Your task to perform on an android device: Open the calendar and show me this week's events Image 0: 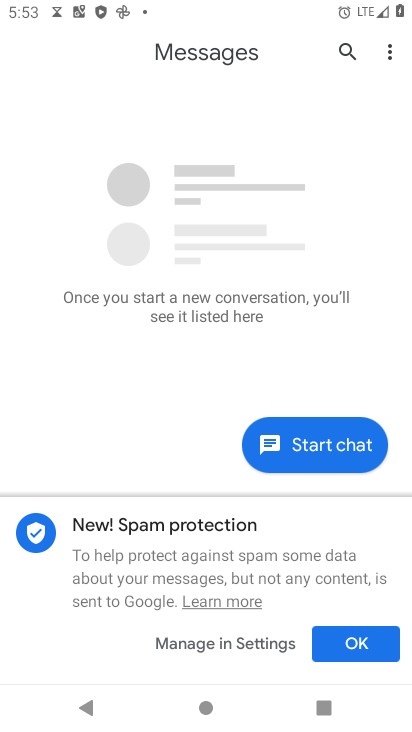
Step 0: press home button
Your task to perform on an android device: Open the calendar and show me this week's events Image 1: 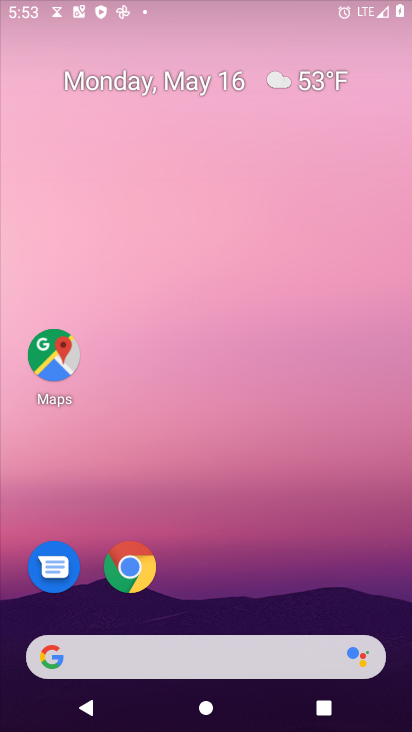
Step 1: drag from (199, 605) to (225, 62)
Your task to perform on an android device: Open the calendar and show me this week's events Image 2: 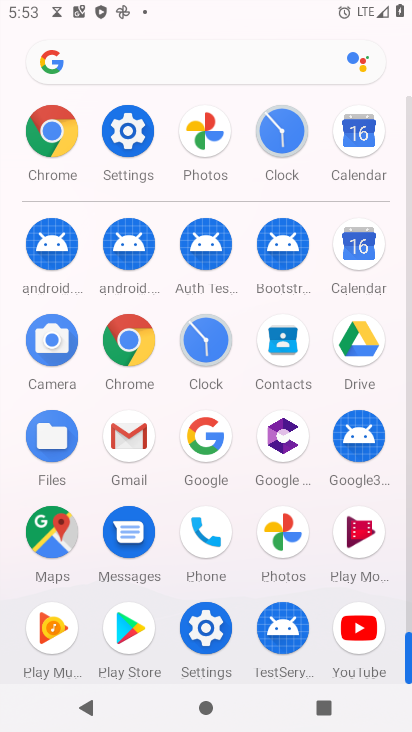
Step 2: click (375, 261)
Your task to perform on an android device: Open the calendar and show me this week's events Image 3: 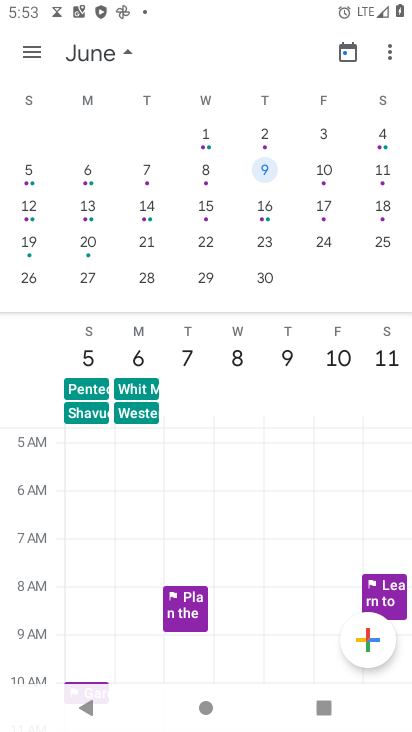
Step 3: drag from (119, 212) to (367, 232)
Your task to perform on an android device: Open the calendar and show me this week's events Image 4: 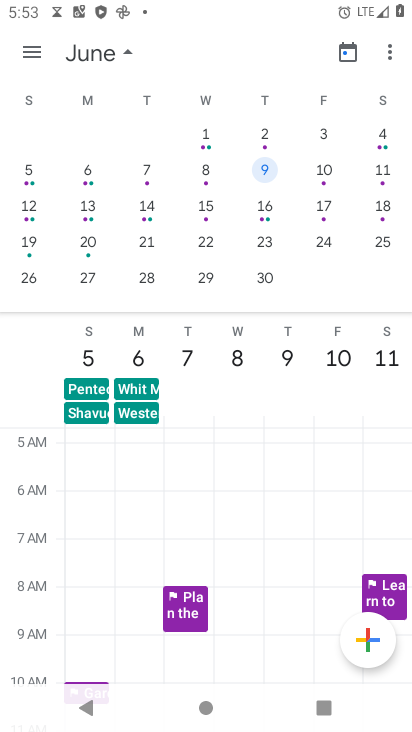
Step 4: drag from (68, 154) to (404, 236)
Your task to perform on an android device: Open the calendar and show me this week's events Image 5: 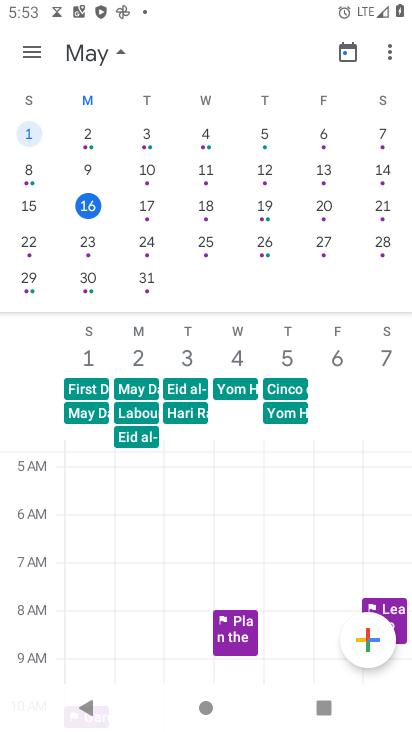
Step 5: click (208, 200)
Your task to perform on an android device: Open the calendar and show me this week's events Image 6: 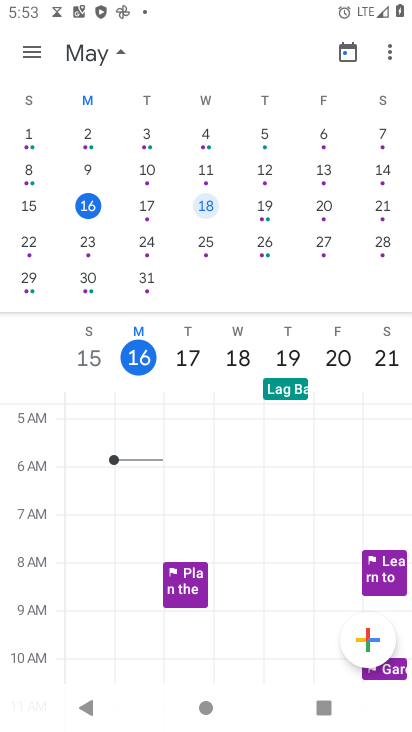
Step 6: task complete